Your task to perform on an android device: check google app version Image 0: 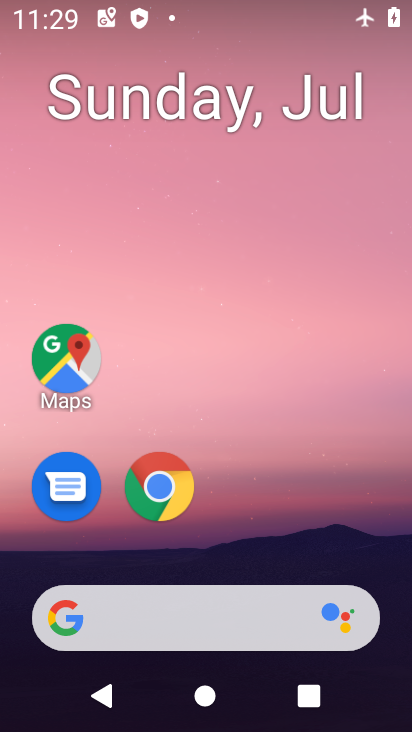
Step 0: press home button
Your task to perform on an android device: check google app version Image 1: 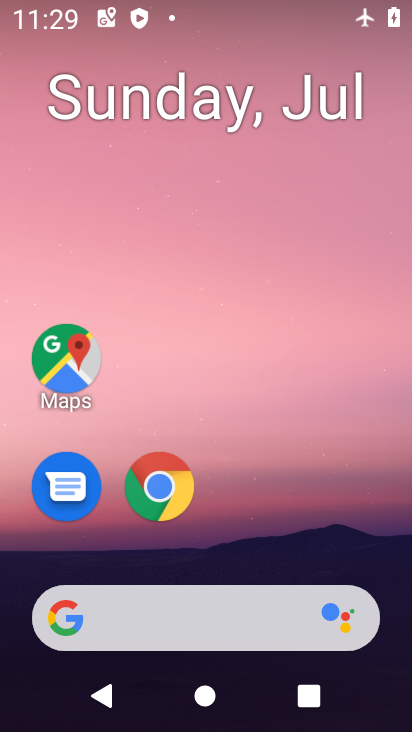
Step 1: drag from (360, 554) to (367, 110)
Your task to perform on an android device: check google app version Image 2: 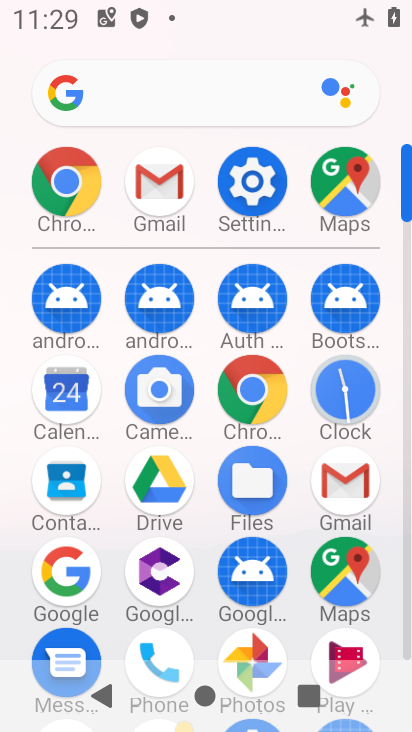
Step 2: click (67, 578)
Your task to perform on an android device: check google app version Image 3: 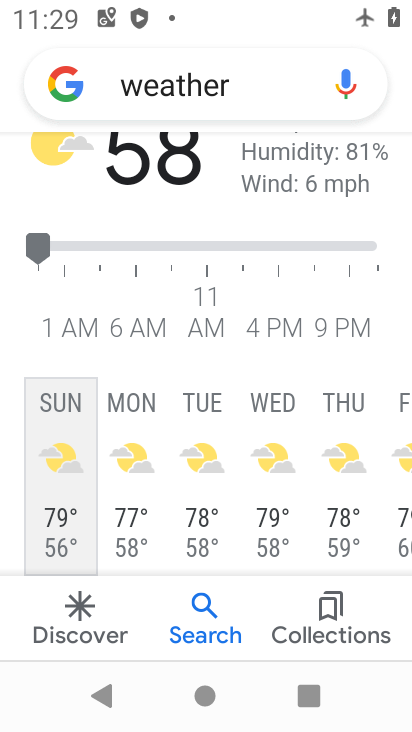
Step 3: press back button
Your task to perform on an android device: check google app version Image 4: 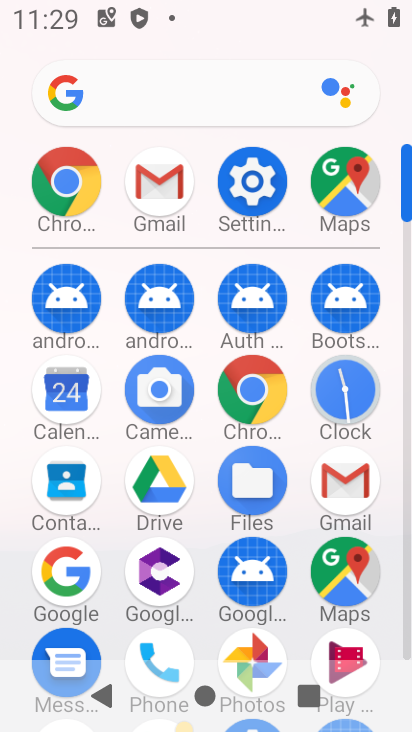
Step 4: click (89, 591)
Your task to perform on an android device: check google app version Image 5: 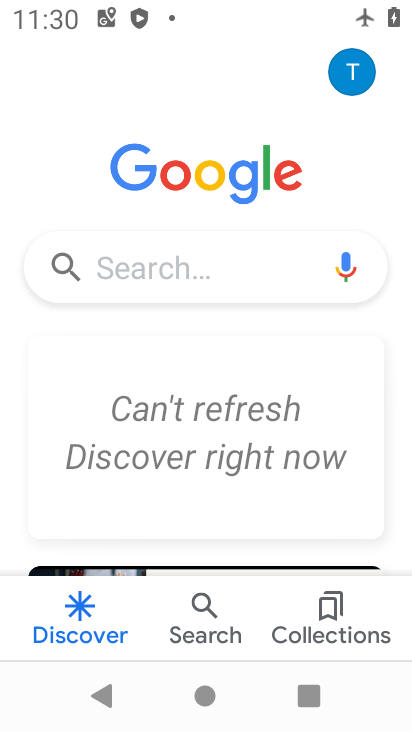
Step 5: click (348, 76)
Your task to perform on an android device: check google app version Image 6: 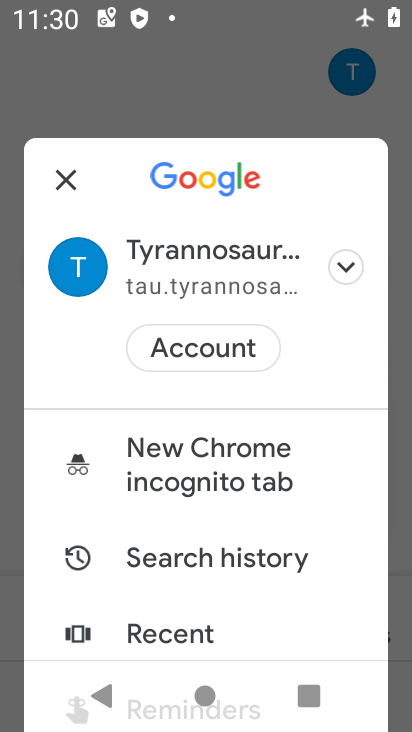
Step 6: drag from (288, 509) to (270, 145)
Your task to perform on an android device: check google app version Image 7: 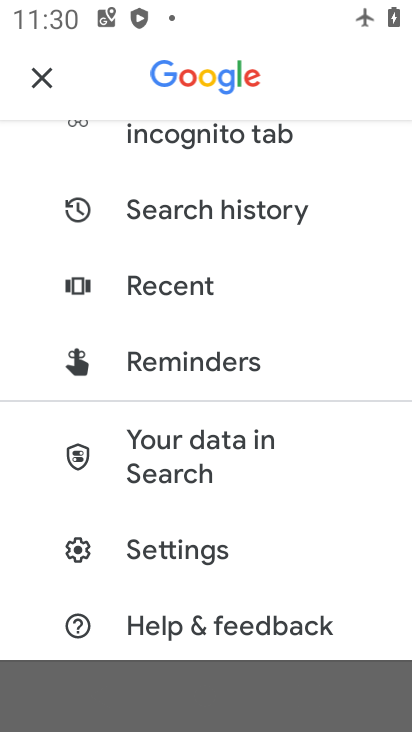
Step 7: drag from (288, 510) to (293, 261)
Your task to perform on an android device: check google app version Image 8: 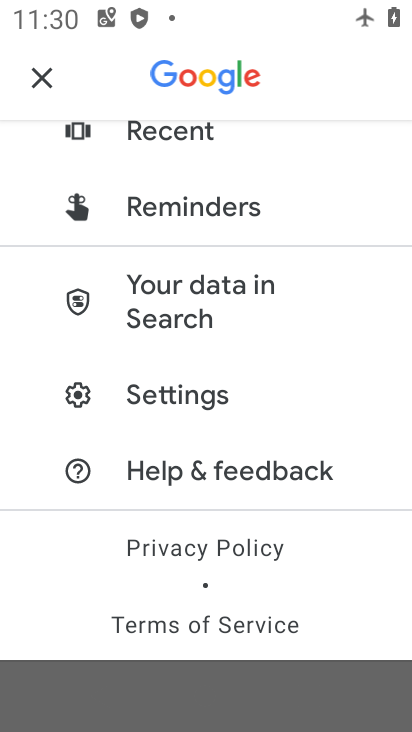
Step 8: click (270, 409)
Your task to perform on an android device: check google app version Image 9: 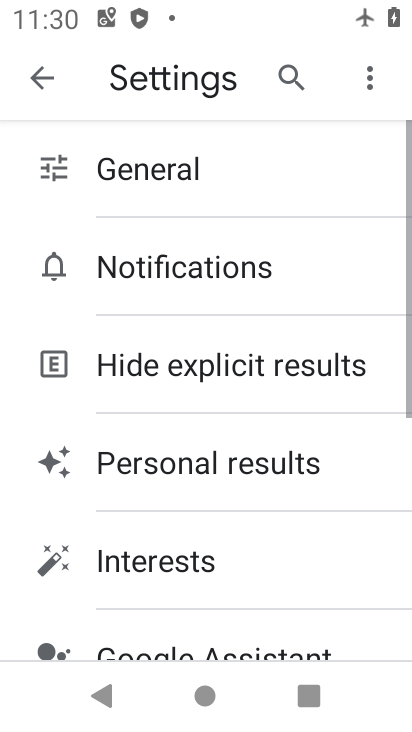
Step 9: drag from (258, 487) to (260, 362)
Your task to perform on an android device: check google app version Image 10: 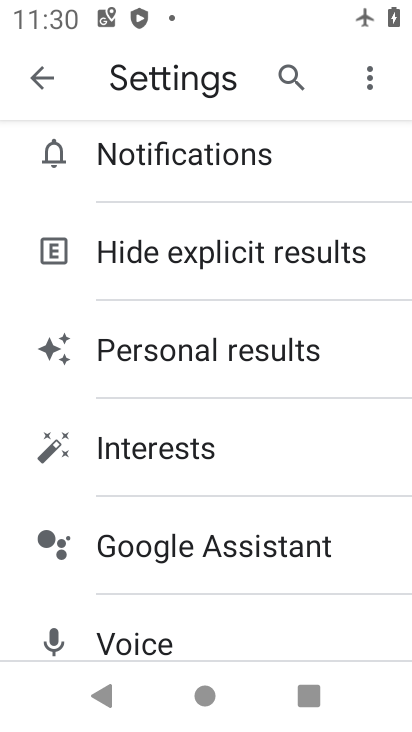
Step 10: drag from (281, 562) to (290, 354)
Your task to perform on an android device: check google app version Image 11: 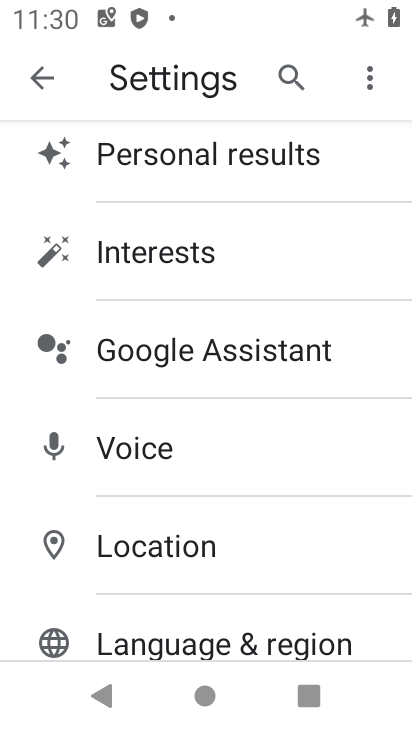
Step 11: drag from (290, 596) to (296, 375)
Your task to perform on an android device: check google app version Image 12: 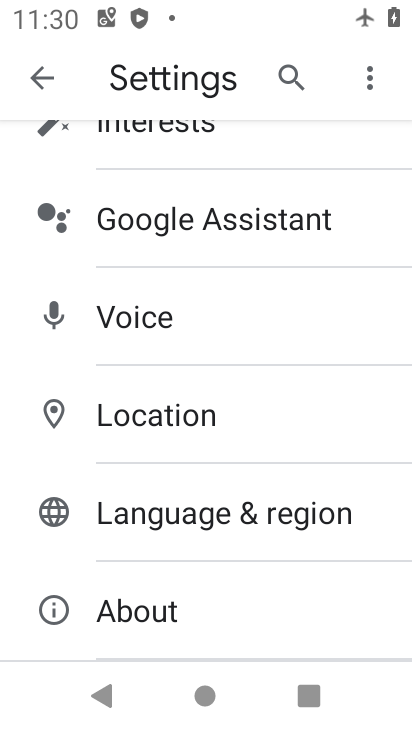
Step 12: click (275, 593)
Your task to perform on an android device: check google app version Image 13: 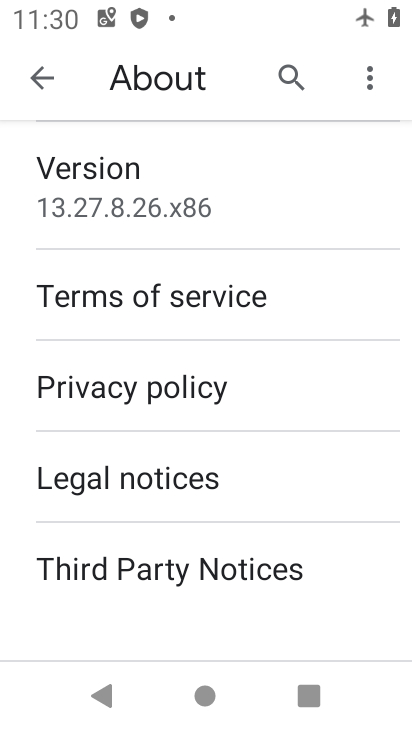
Step 13: task complete